Your task to perform on an android device: open a bookmark in the chrome app Image 0: 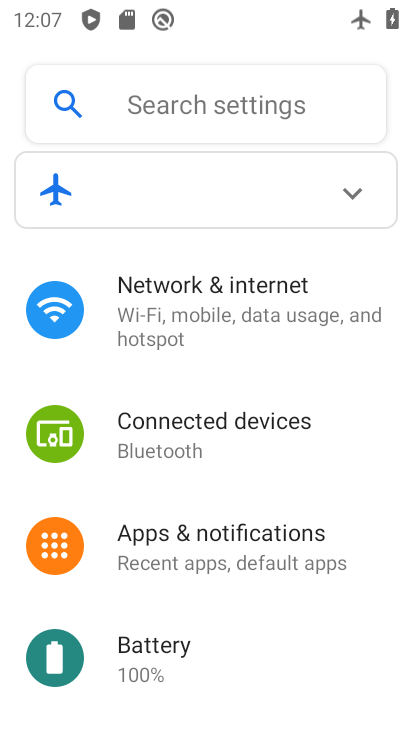
Step 0: press home button
Your task to perform on an android device: open a bookmark in the chrome app Image 1: 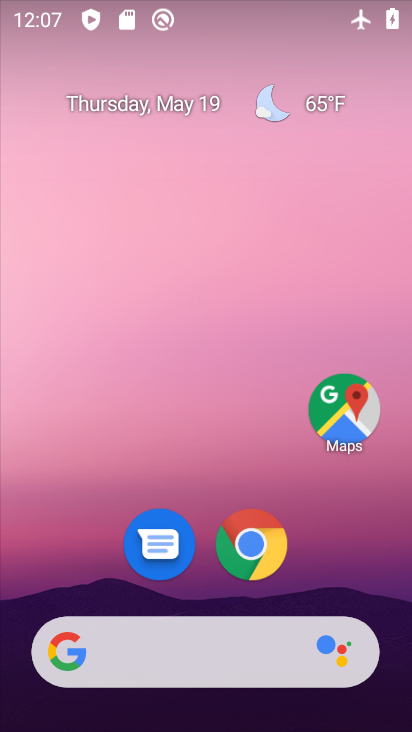
Step 1: drag from (361, 549) to (390, 150)
Your task to perform on an android device: open a bookmark in the chrome app Image 2: 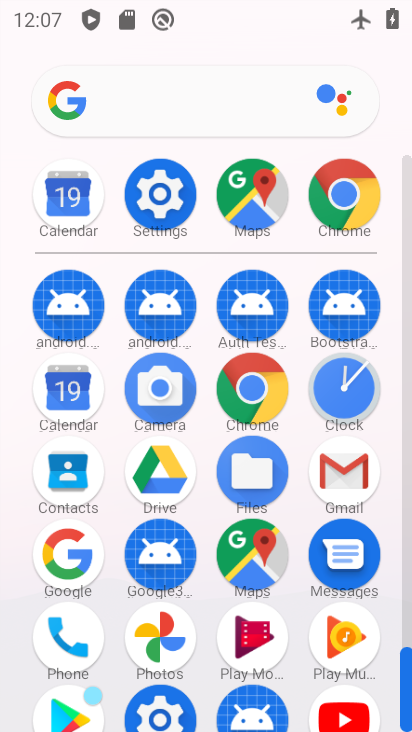
Step 2: click (272, 391)
Your task to perform on an android device: open a bookmark in the chrome app Image 3: 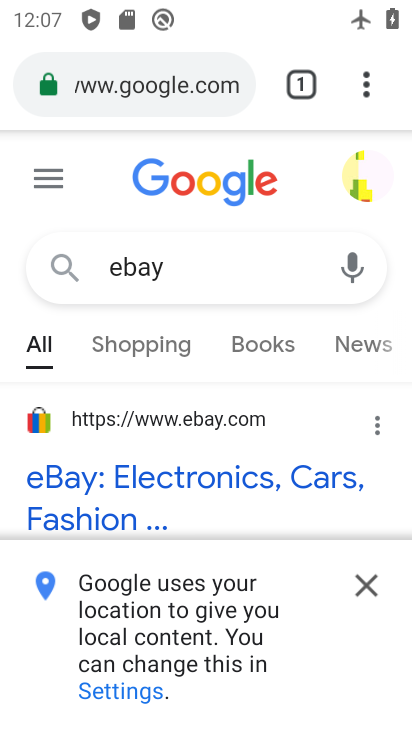
Step 3: click (366, 90)
Your task to perform on an android device: open a bookmark in the chrome app Image 4: 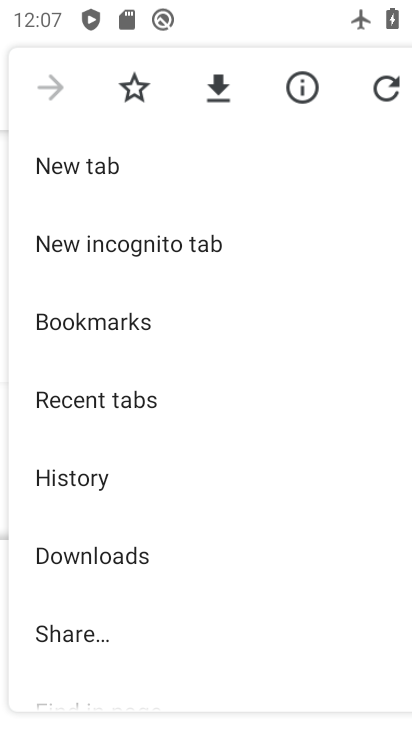
Step 4: click (126, 328)
Your task to perform on an android device: open a bookmark in the chrome app Image 5: 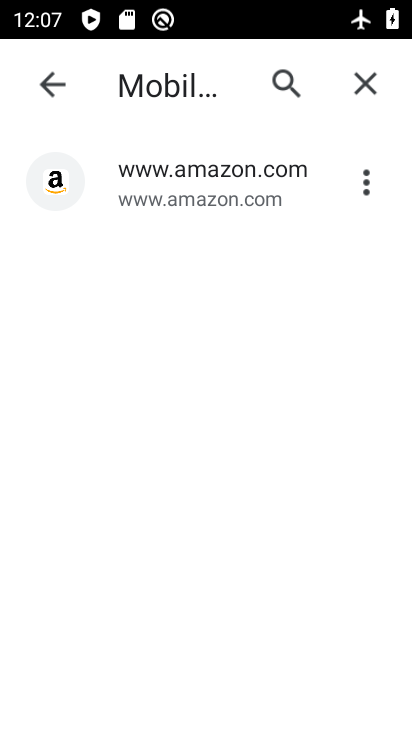
Step 5: click (226, 176)
Your task to perform on an android device: open a bookmark in the chrome app Image 6: 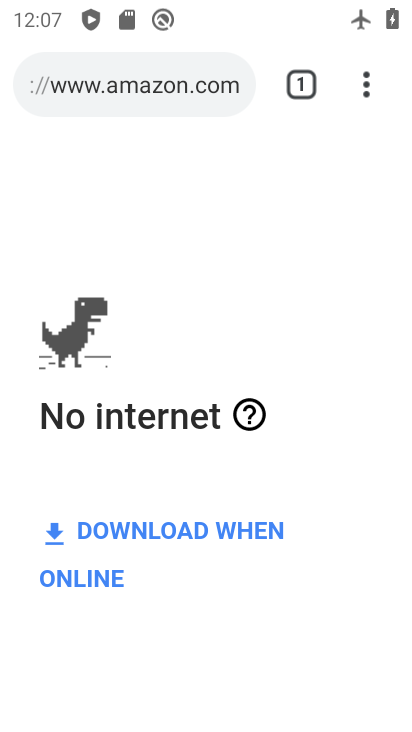
Step 6: task complete